Your task to perform on an android device: Turn off the flashlight Image 0: 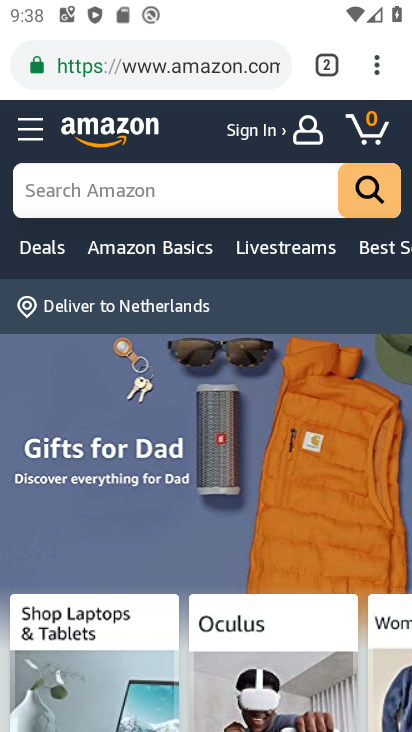
Step 0: press home button
Your task to perform on an android device: Turn off the flashlight Image 1: 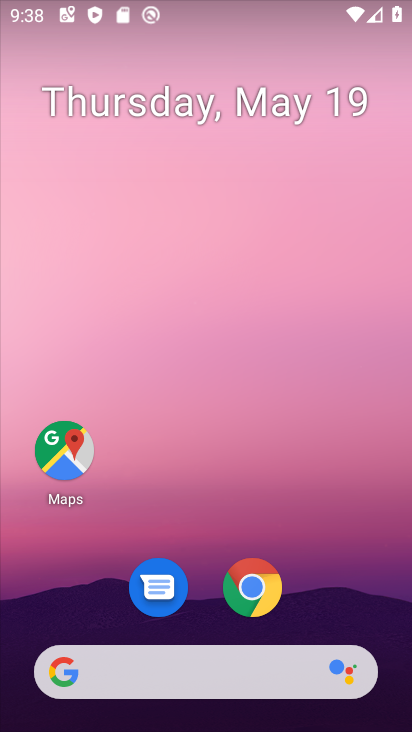
Step 1: task complete